Your task to perform on an android device: Search for seafood restaurants on Google Maps Image 0: 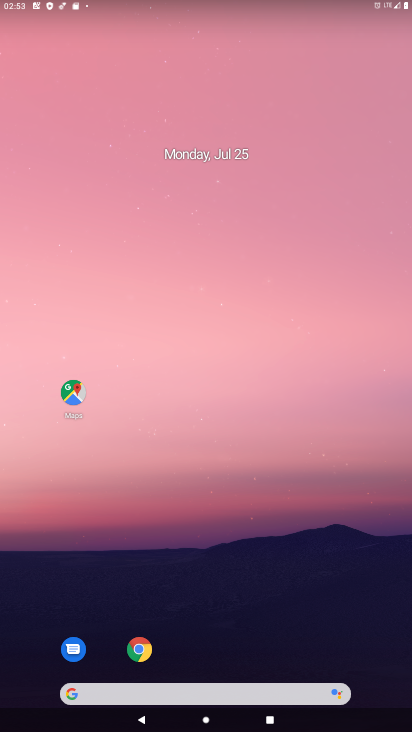
Step 0: click (72, 388)
Your task to perform on an android device: Search for seafood restaurants on Google Maps Image 1: 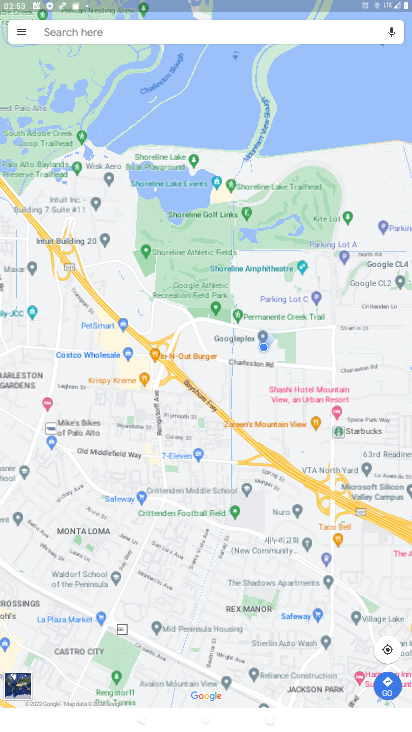
Step 1: click (98, 30)
Your task to perform on an android device: Search for seafood restaurants on Google Maps Image 2: 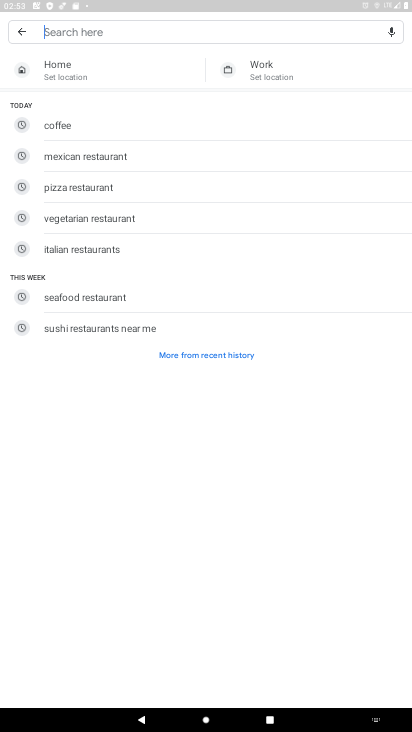
Step 2: type "seafood restaurants"
Your task to perform on an android device: Search for seafood restaurants on Google Maps Image 3: 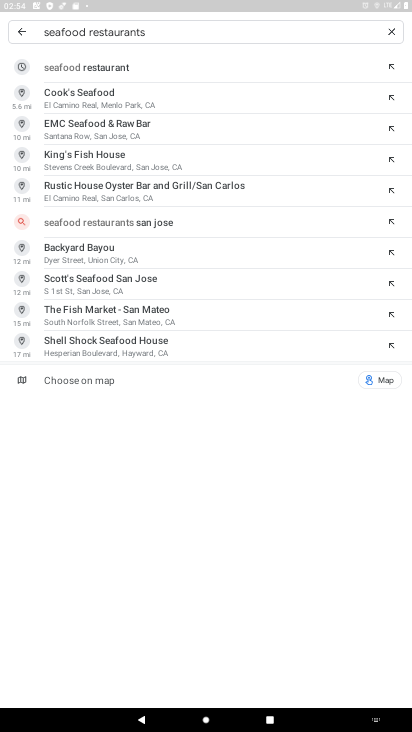
Step 3: click (76, 53)
Your task to perform on an android device: Search for seafood restaurants on Google Maps Image 4: 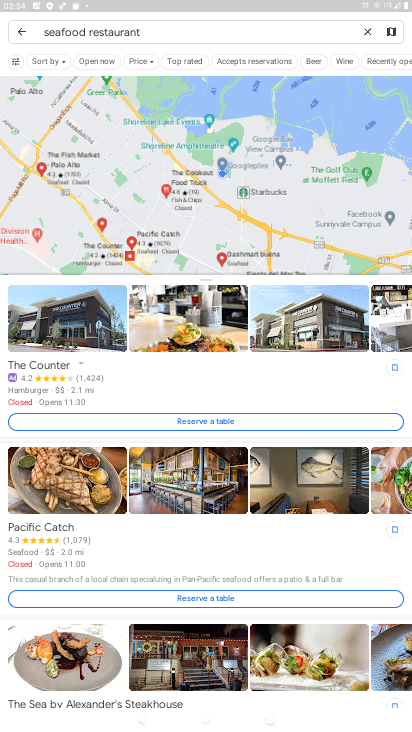
Step 4: task complete